Your task to perform on an android device: turn off improve location accuracy Image 0: 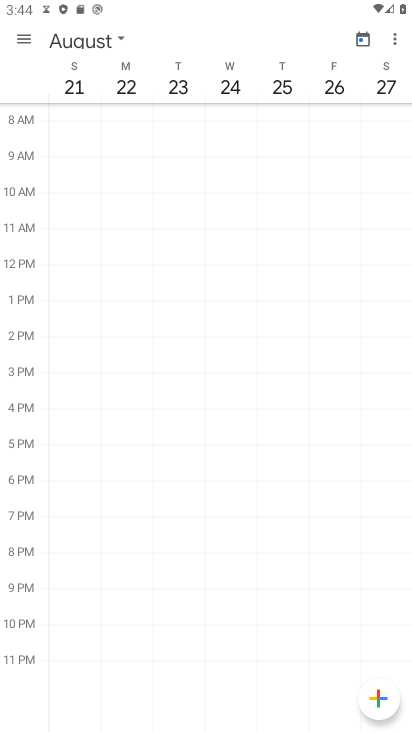
Step 0: press home button
Your task to perform on an android device: turn off improve location accuracy Image 1: 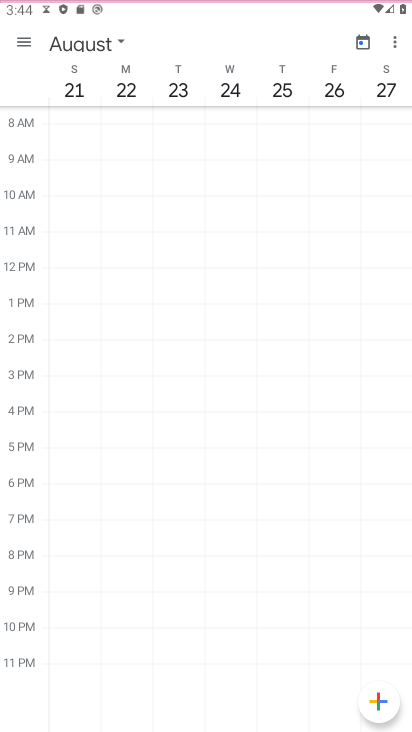
Step 1: press home button
Your task to perform on an android device: turn off improve location accuracy Image 2: 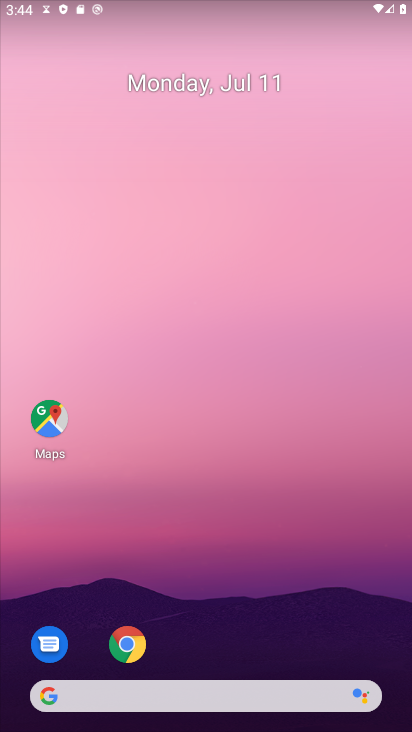
Step 2: drag from (223, 726) to (218, 180)
Your task to perform on an android device: turn off improve location accuracy Image 3: 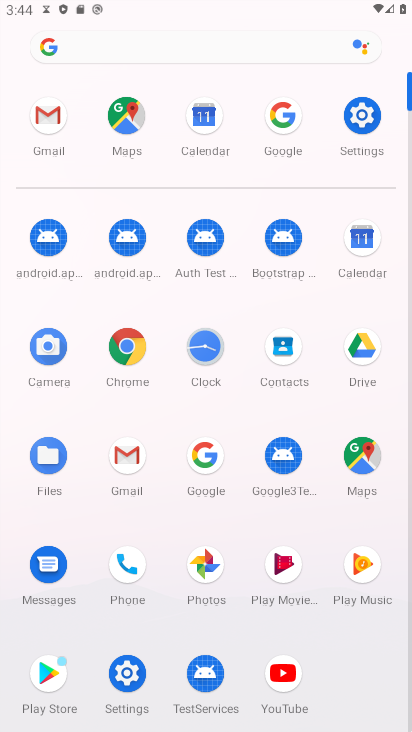
Step 3: click (361, 118)
Your task to perform on an android device: turn off improve location accuracy Image 4: 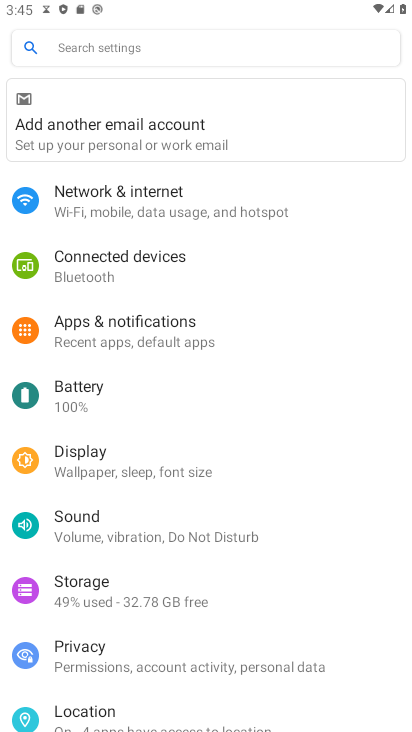
Step 4: click (73, 710)
Your task to perform on an android device: turn off improve location accuracy Image 5: 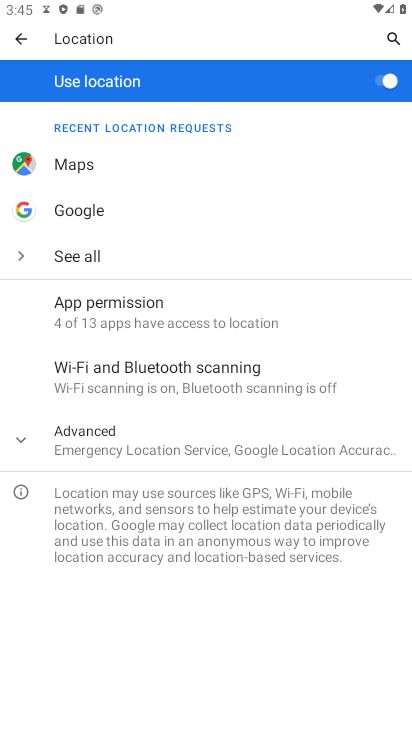
Step 5: click (96, 441)
Your task to perform on an android device: turn off improve location accuracy Image 6: 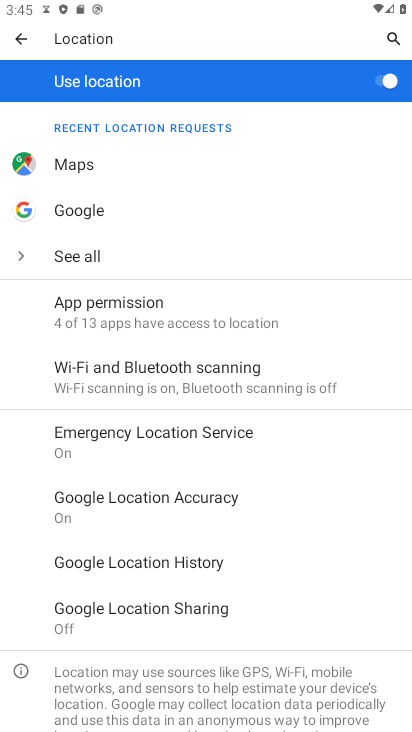
Step 6: click (149, 494)
Your task to perform on an android device: turn off improve location accuracy Image 7: 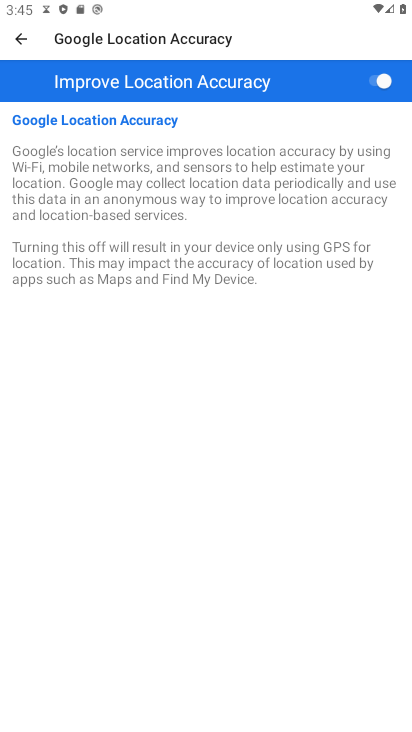
Step 7: click (376, 81)
Your task to perform on an android device: turn off improve location accuracy Image 8: 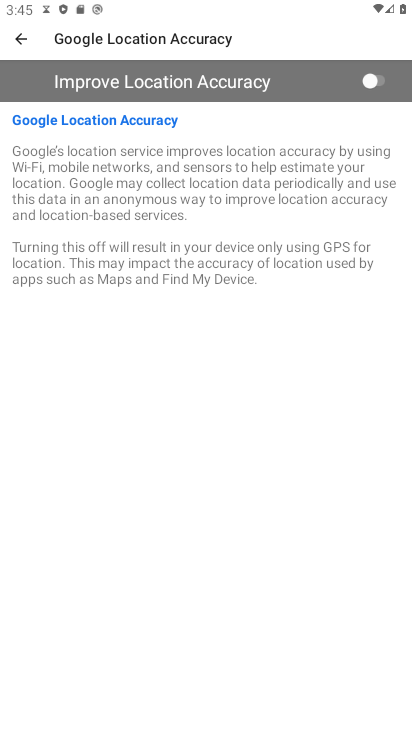
Step 8: task complete